Your task to perform on an android device: show emergency info Image 0: 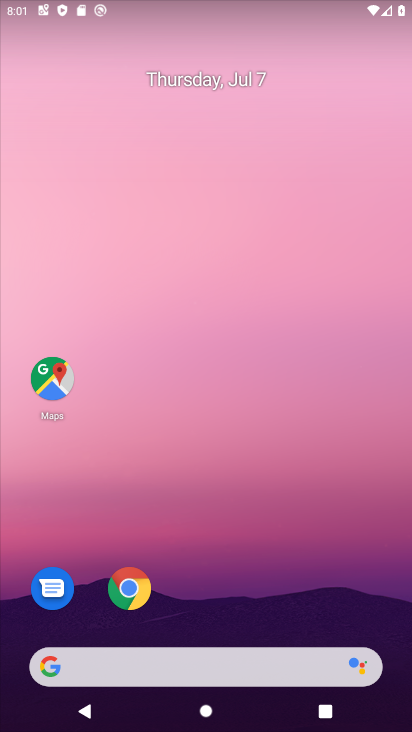
Step 0: drag from (186, 532) to (306, 95)
Your task to perform on an android device: show emergency info Image 1: 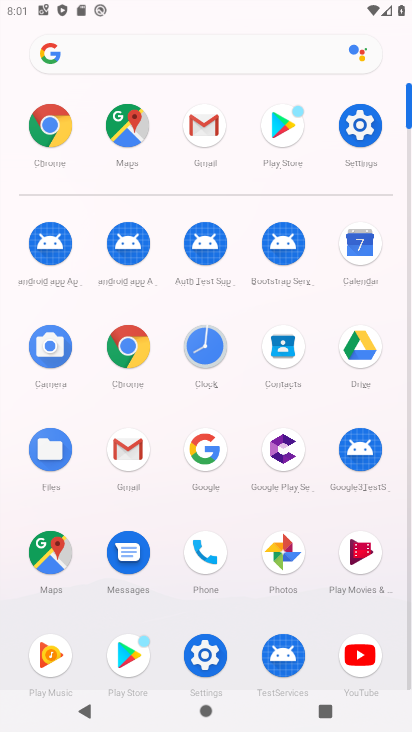
Step 1: click (369, 127)
Your task to perform on an android device: show emergency info Image 2: 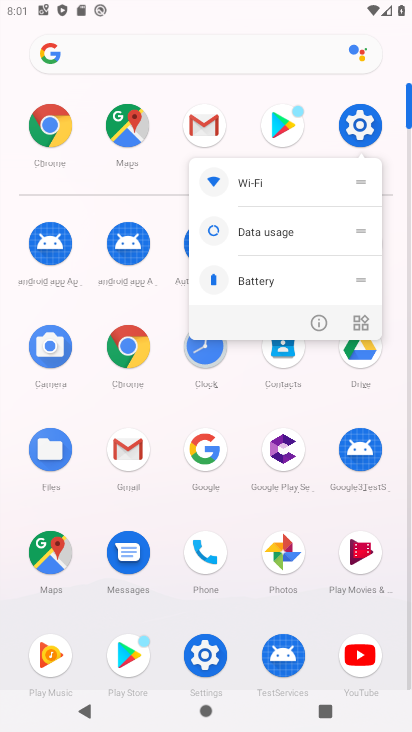
Step 2: click (318, 323)
Your task to perform on an android device: show emergency info Image 3: 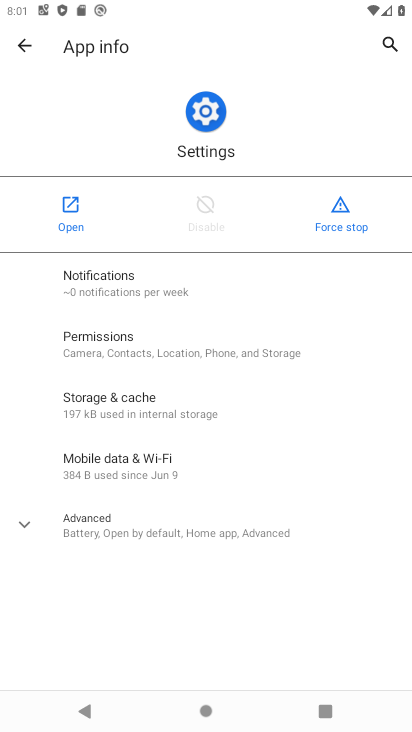
Step 3: click (76, 226)
Your task to perform on an android device: show emergency info Image 4: 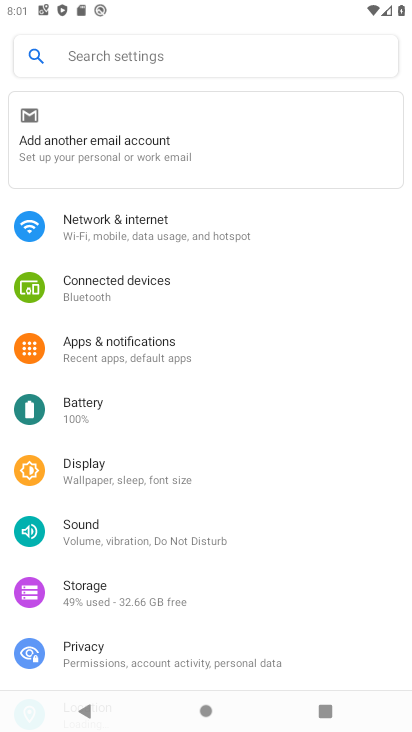
Step 4: drag from (197, 505) to (298, 143)
Your task to perform on an android device: show emergency info Image 5: 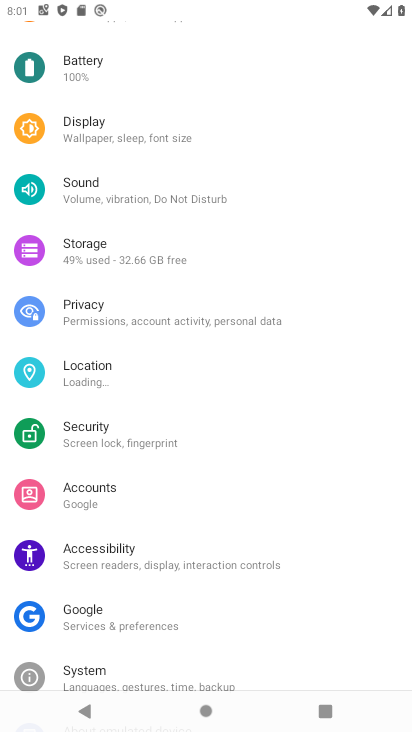
Step 5: drag from (152, 659) to (317, 128)
Your task to perform on an android device: show emergency info Image 6: 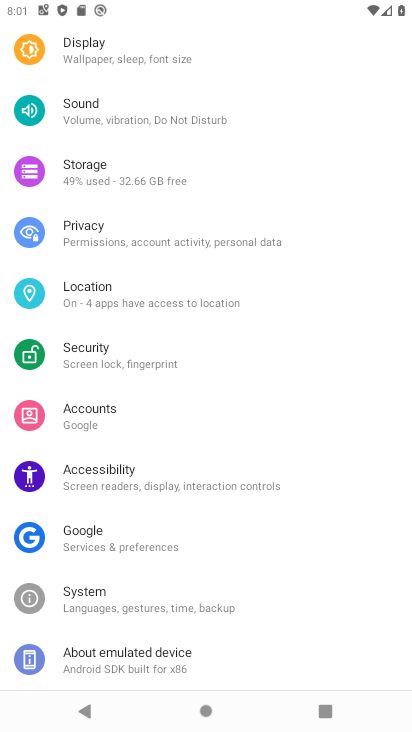
Step 6: click (114, 670)
Your task to perform on an android device: show emergency info Image 7: 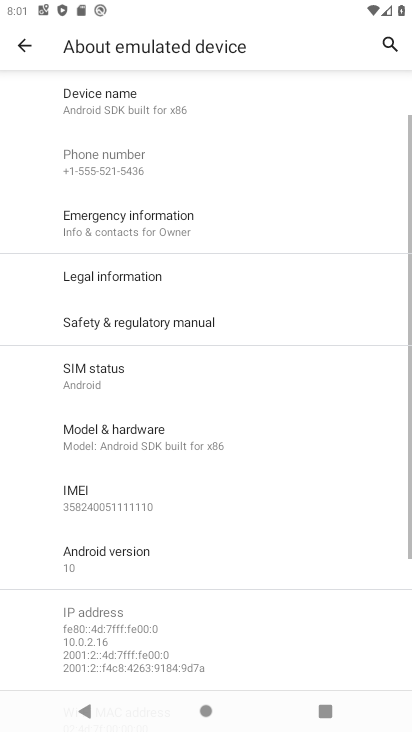
Step 7: drag from (164, 471) to (274, 222)
Your task to perform on an android device: show emergency info Image 8: 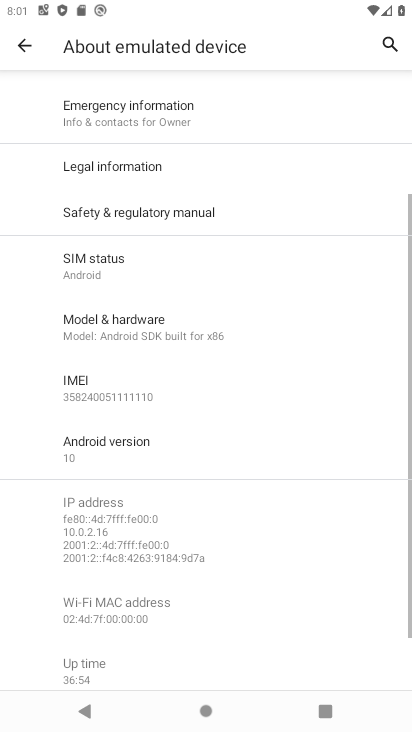
Step 8: drag from (228, 596) to (254, 223)
Your task to perform on an android device: show emergency info Image 9: 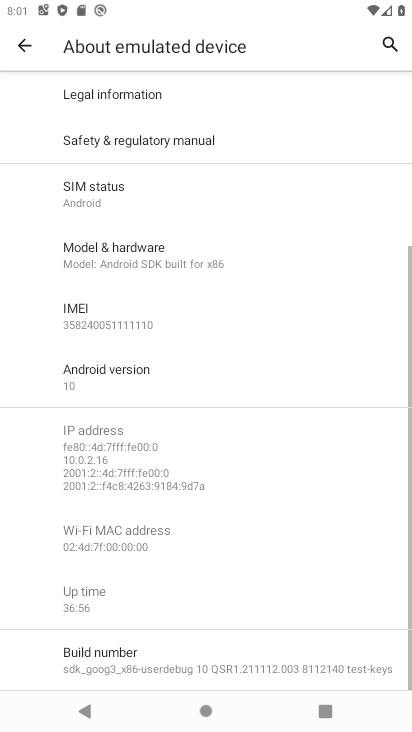
Step 9: drag from (211, 486) to (280, 180)
Your task to perform on an android device: show emergency info Image 10: 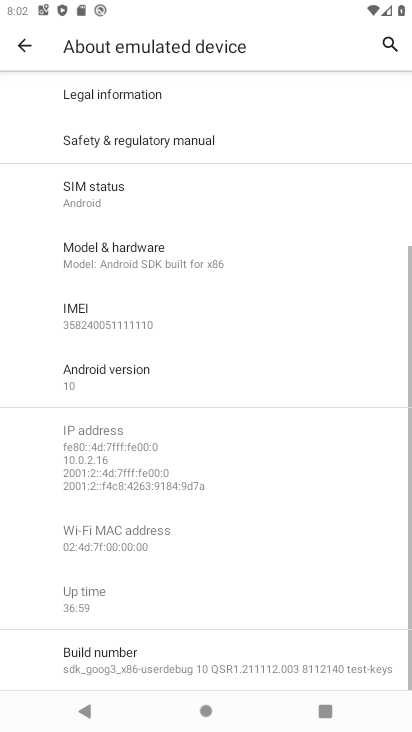
Step 10: drag from (200, 240) to (305, 725)
Your task to perform on an android device: show emergency info Image 11: 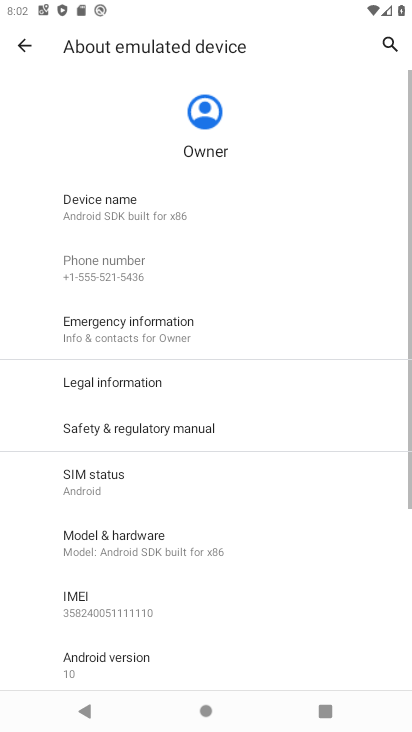
Step 11: click (120, 306)
Your task to perform on an android device: show emergency info Image 12: 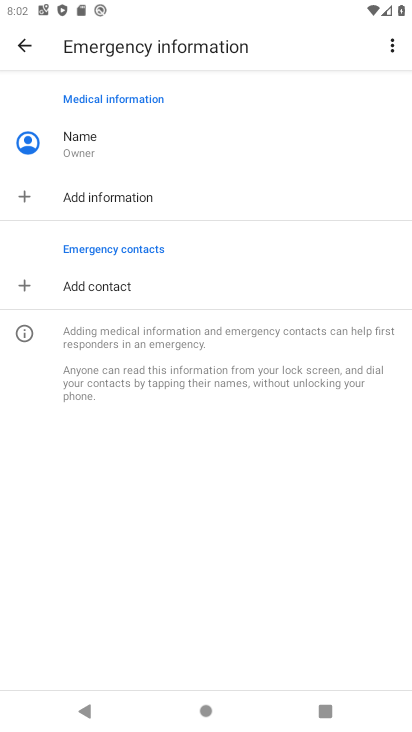
Step 12: task complete